Your task to perform on an android device: turn on sleep mode Image 0: 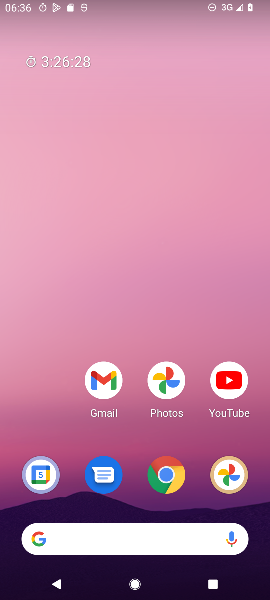
Step 0: press home button
Your task to perform on an android device: turn on sleep mode Image 1: 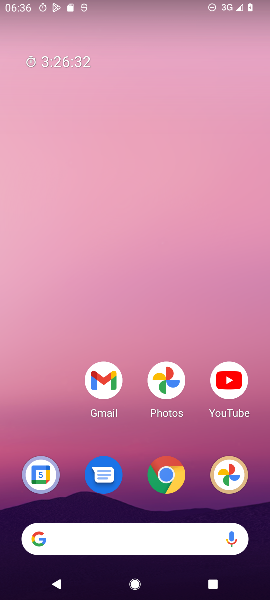
Step 1: drag from (60, 446) to (54, 163)
Your task to perform on an android device: turn on sleep mode Image 2: 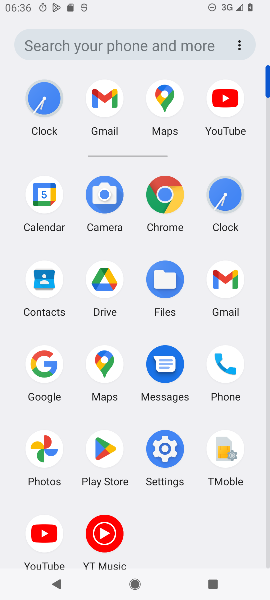
Step 2: click (168, 449)
Your task to perform on an android device: turn on sleep mode Image 3: 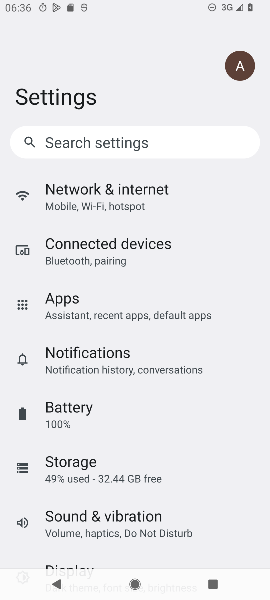
Step 3: drag from (225, 409) to (228, 321)
Your task to perform on an android device: turn on sleep mode Image 4: 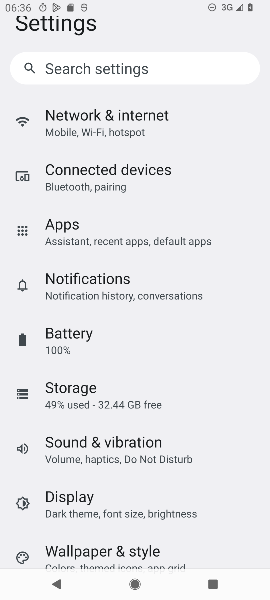
Step 4: drag from (219, 427) to (222, 357)
Your task to perform on an android device: turn on sleep mode Image 5: 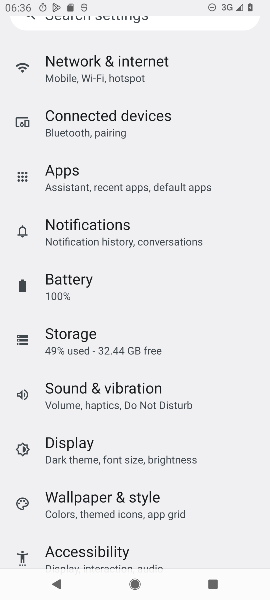
Step 5: drag from (226, 465) to (227, 377)
Your task to perform on an android device: turn on sleep mode Image 6: 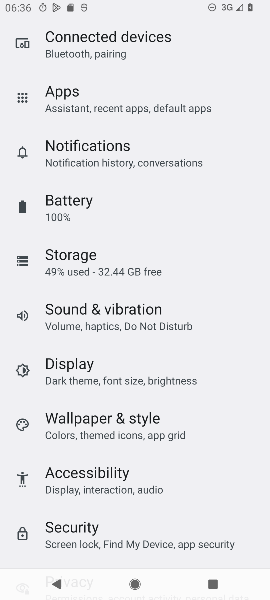
Step 6: drag from (216, 457) to (229, 374)
Your task to perform on an android device: turn on sleep mode Image 7: 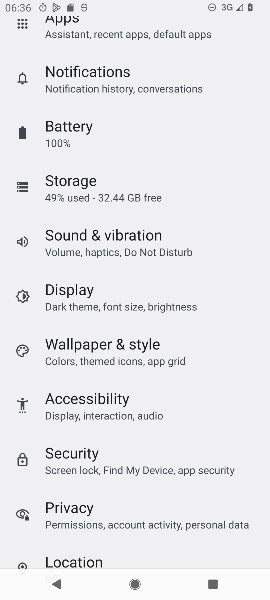
Step 7: drag from (225, 425) to (231, 368)
Your task to perform on an android device: turn on sleep mode Image 8: 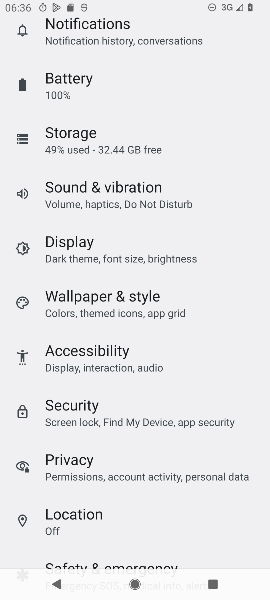
Step 8: drag from (227, 498) to (231, 401)
Your task to perform on an android device: turn on sleep mode Image 9: 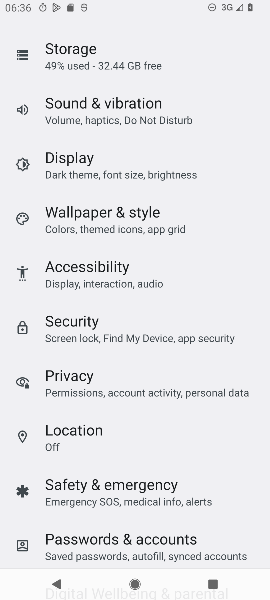
Step 9: drag from (226, 502) to (234, 414)
Your task to perform on an android device: turn on sleep mode Image 10: 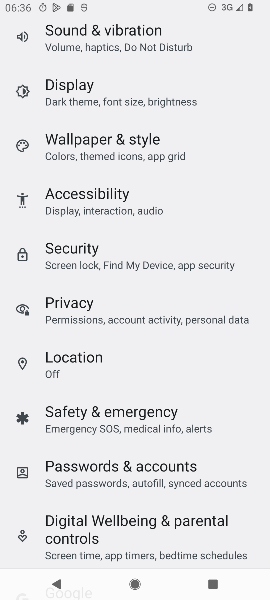
Step 10: drag from (242, 338) to (246, 411)
Your task to perform on an android device: turn on sleep mode Image 11: 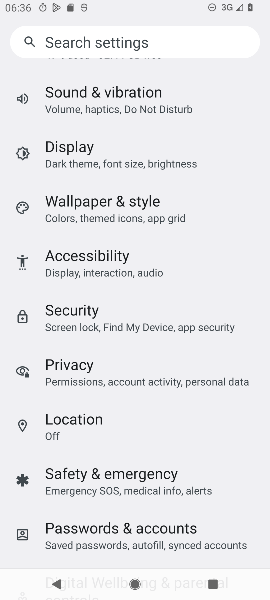
Step 11: drag from (254, 306) to (251, 384)
Your task to perform on an android device: turn on sleep mode Image 12: 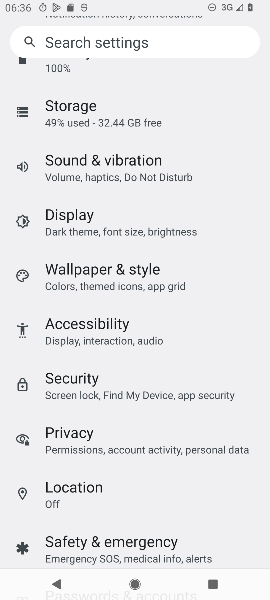
Step 12: drag from (252, 274) to (249, 376)
Your task to perform on an android device: turn on sleep mode Image 13: 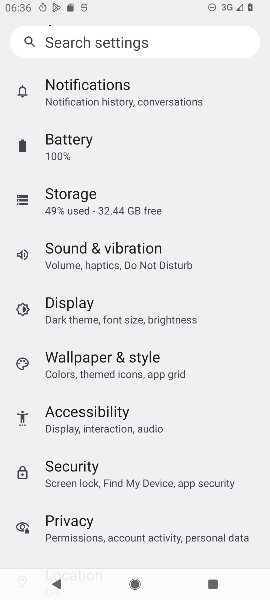
Step 13: drag from (236, 260) to (236, 340)
Your task to perform on an android device: turn on sleep mode Image 14: 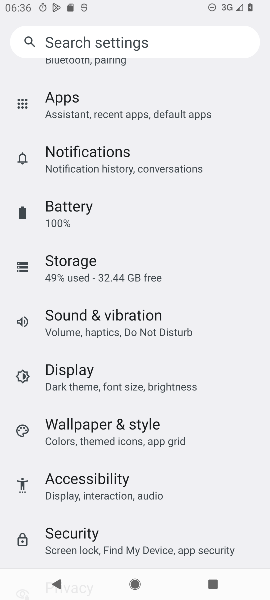
Step 14: drag from (230, 237) to (231, 312)
Your task to perform on an android device: turn on sleep mode Image 15: 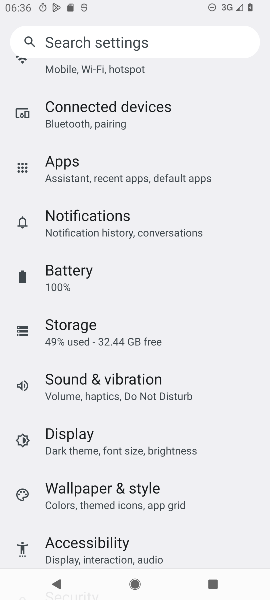
Step 15: click (204, 449)
Your task to perform on an android device: turn on sleep mode Image 16: 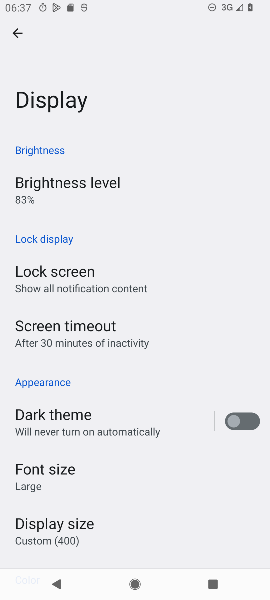
Step 16: task complete